Your task to perform on an android device: clear history in the chrome app Image 0: 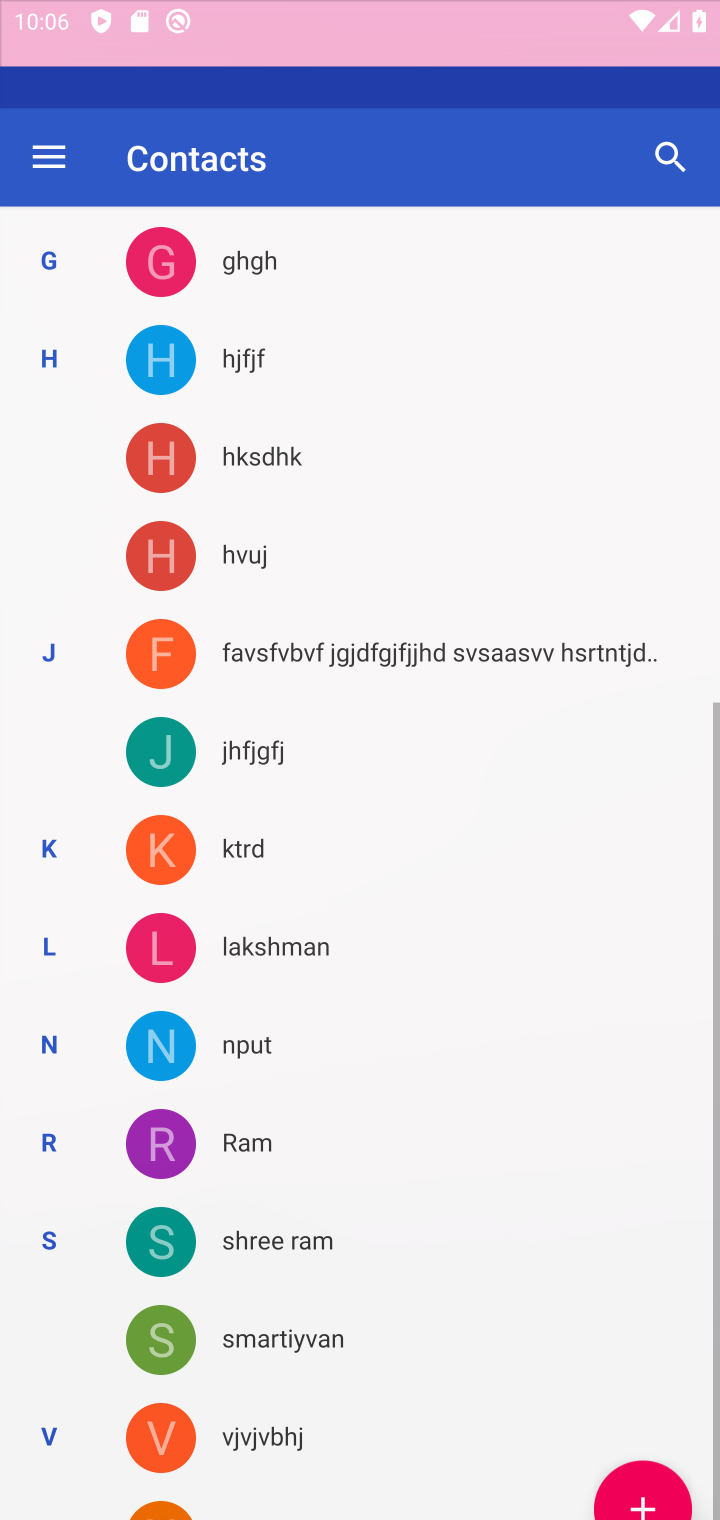
Step 0: press home button
Your task to perform on an android device: clear history in the chrome app Image 1: 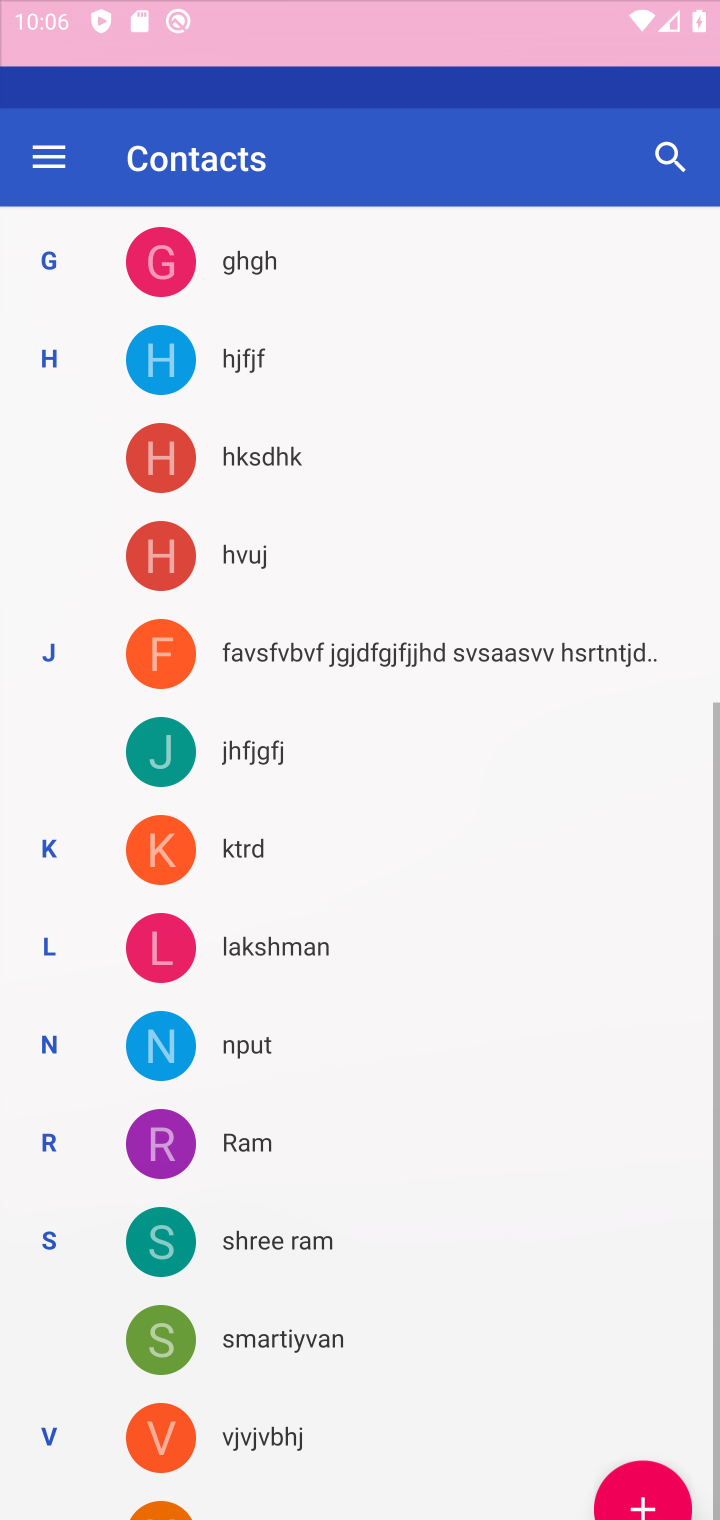
Step 1: click (409, 724)
Your task to perform on an android device: clear history in the chrome app Image 2: 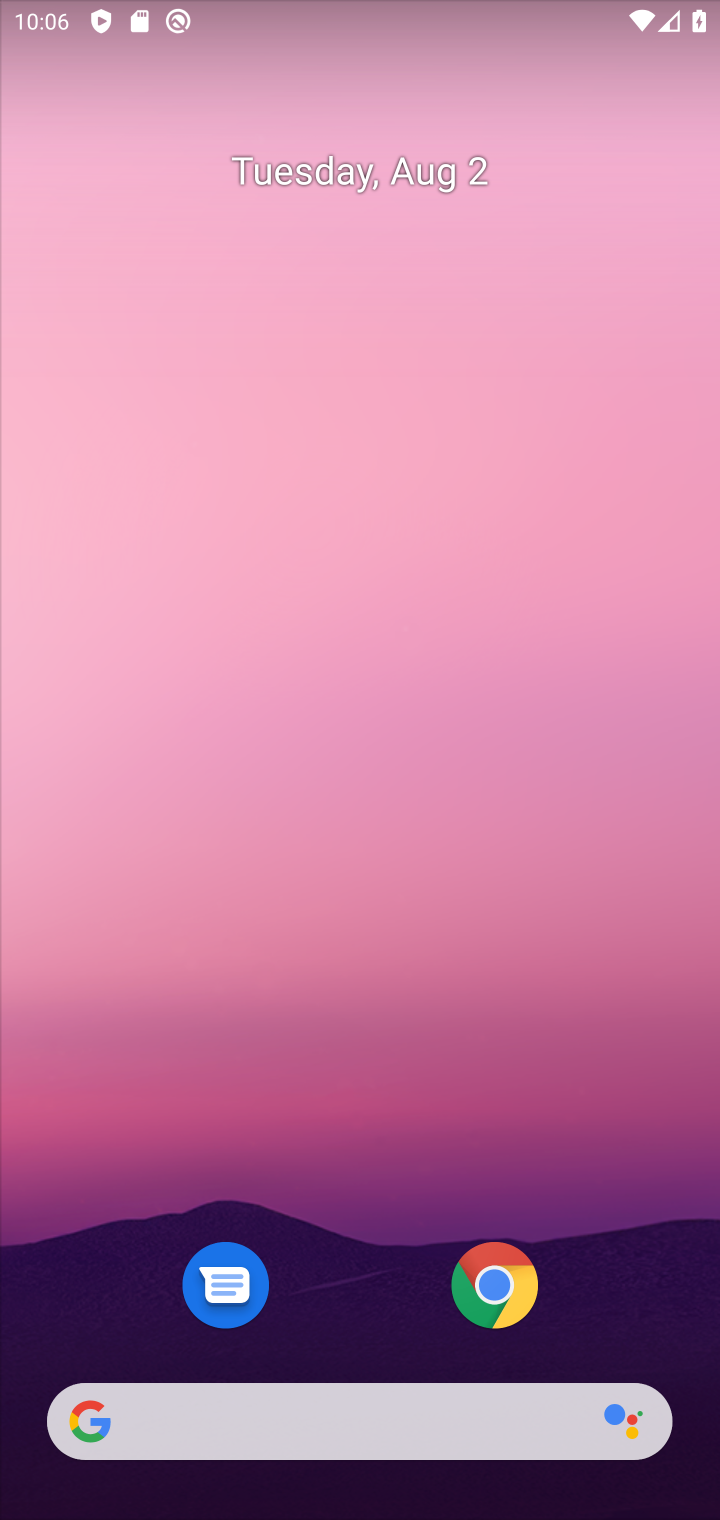
Step 2: drag from (396, 1127) to (545, 526)
Your task to perform on an android device: clear history in the chrome app Image 3: 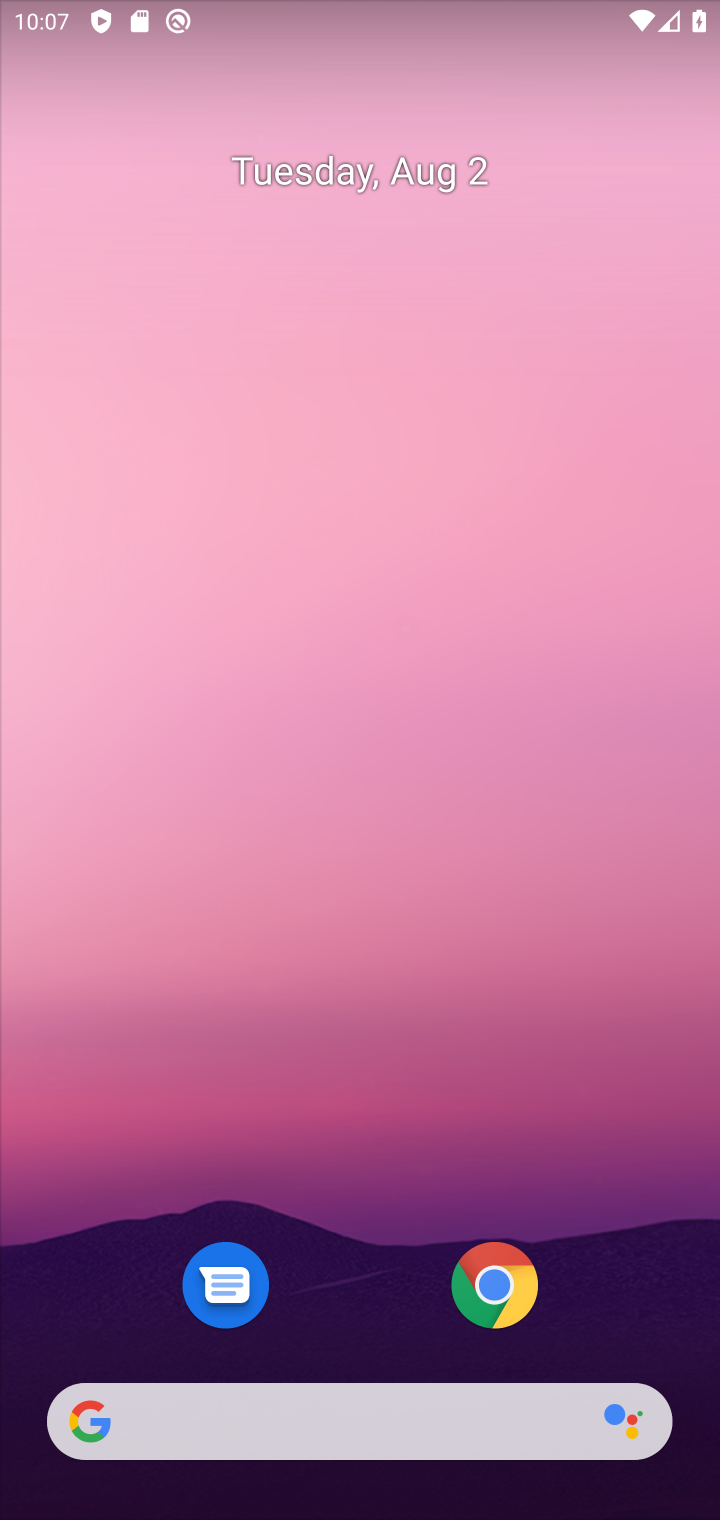
Step 3: drag from (310, 1293) to (341, 361)
Your task to perform on an android device: clear history in the chrome app Image 4: 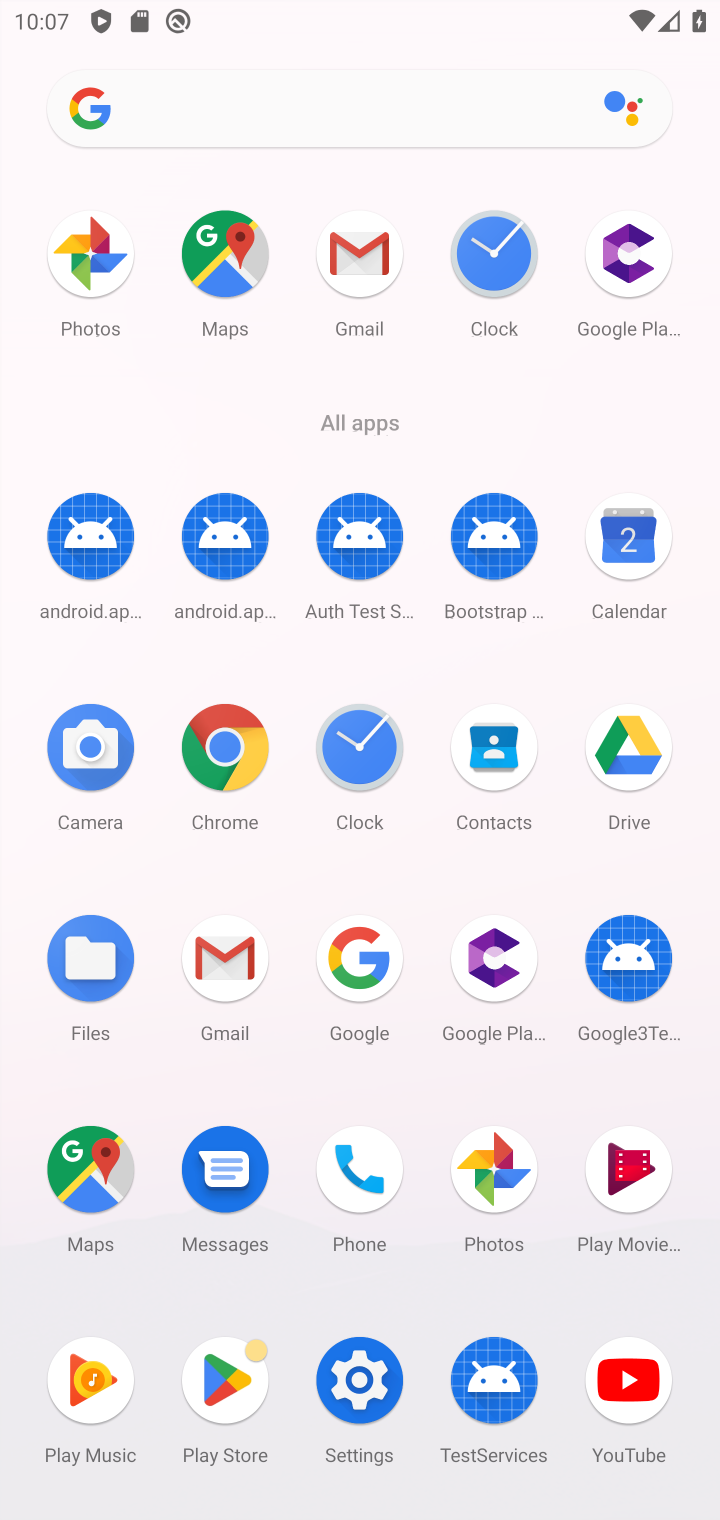
Step 4: click (215, 733)
Your task to perform on an android device: clear history in the chrome app Image 5: 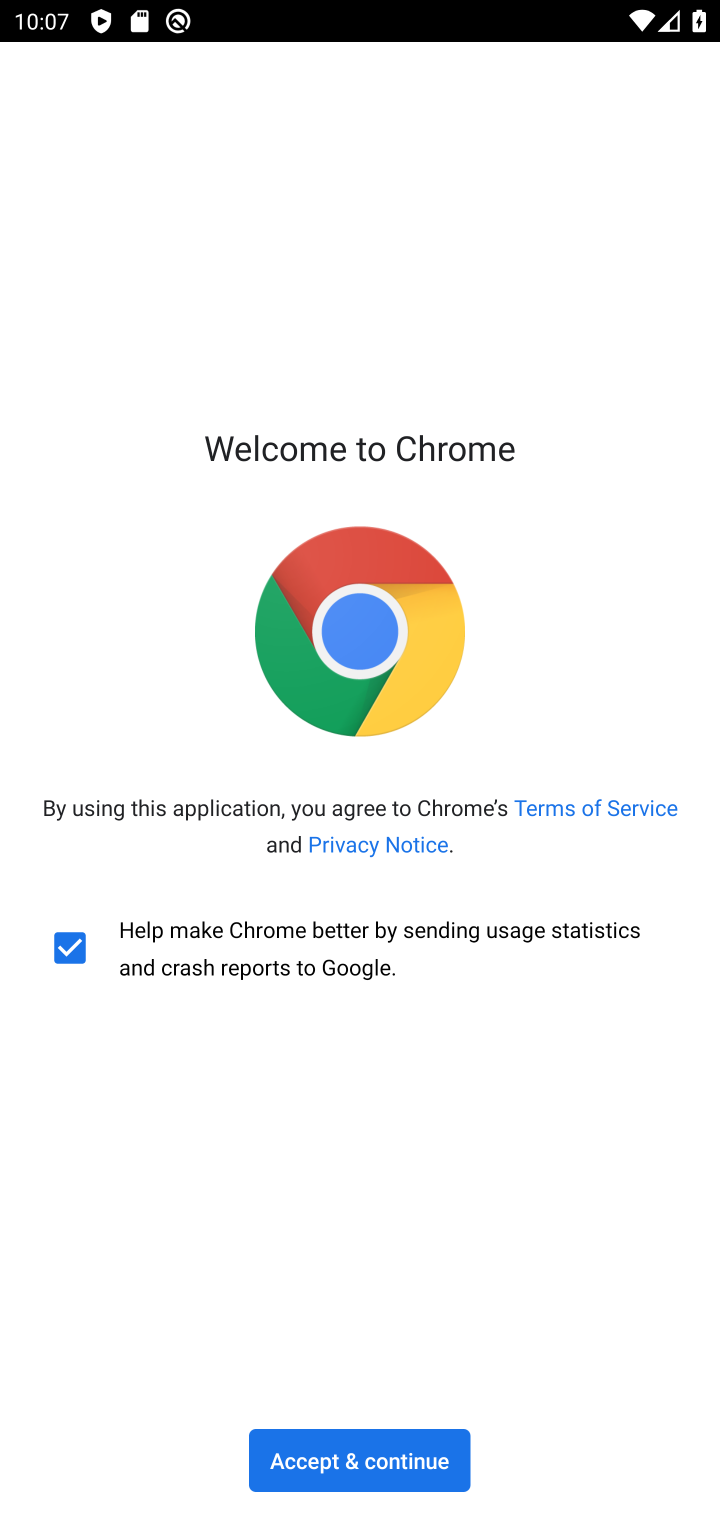
Step 5: click (365, 1464)
Your task to perform on an android device: clear history in the chrome app Image 6: 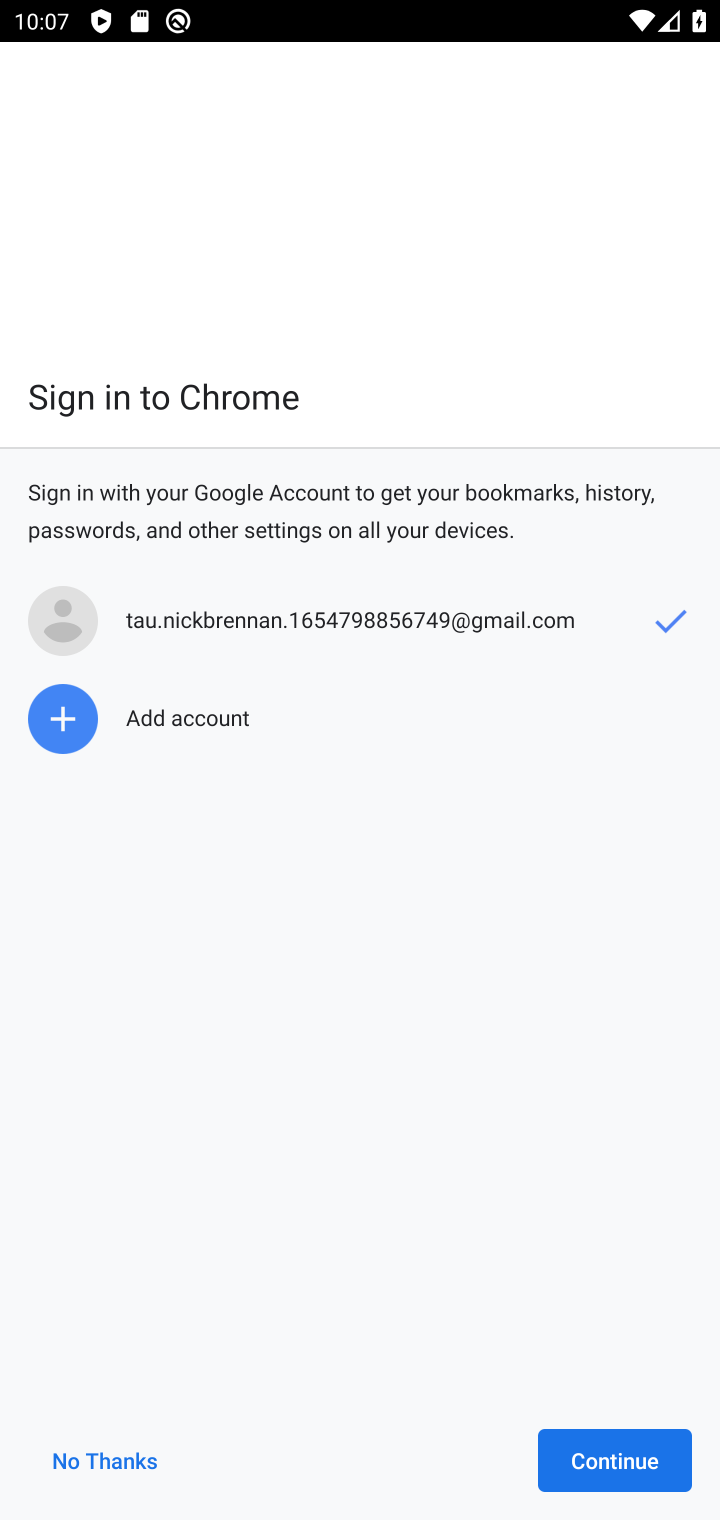
Step 6: click (618, 1458)
Your task to perform on an android device: clear history in the chrome app Image 7: 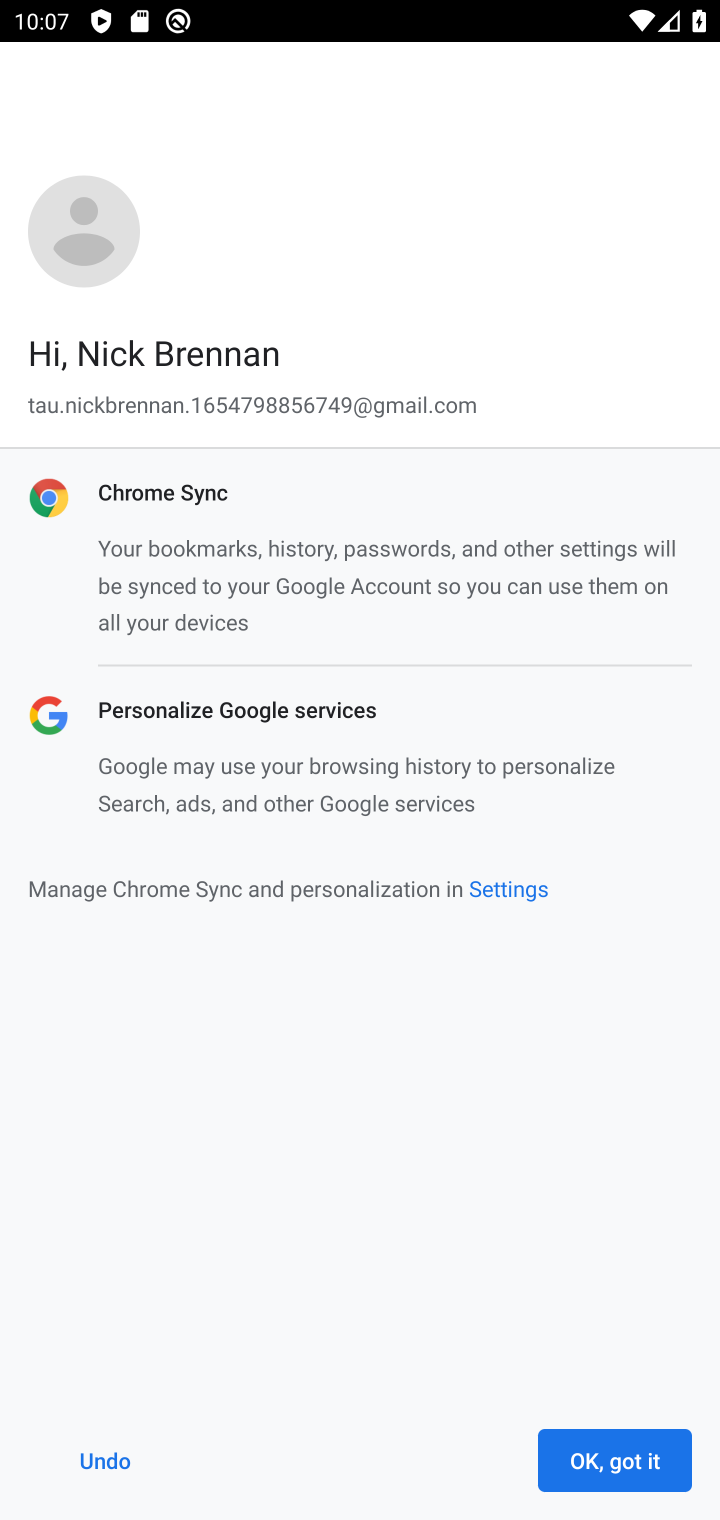
Step 7: click (616, 1458)
Your task to perform on an android device: clear history in the chrome app Image 8: 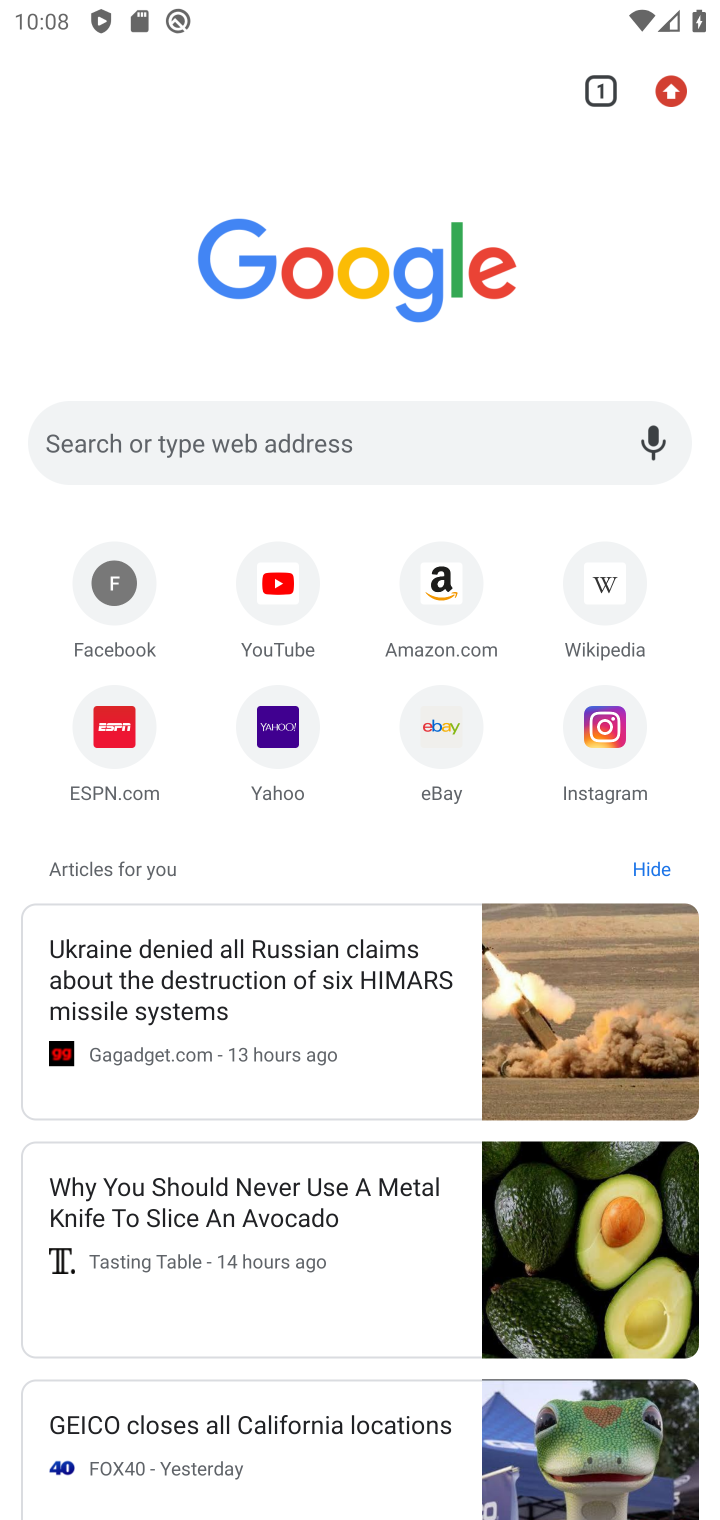
Step 8: drag from (338, 1246) to (398, 604)
Your task to perform on an android device: clear history in the chrome app Image 9: 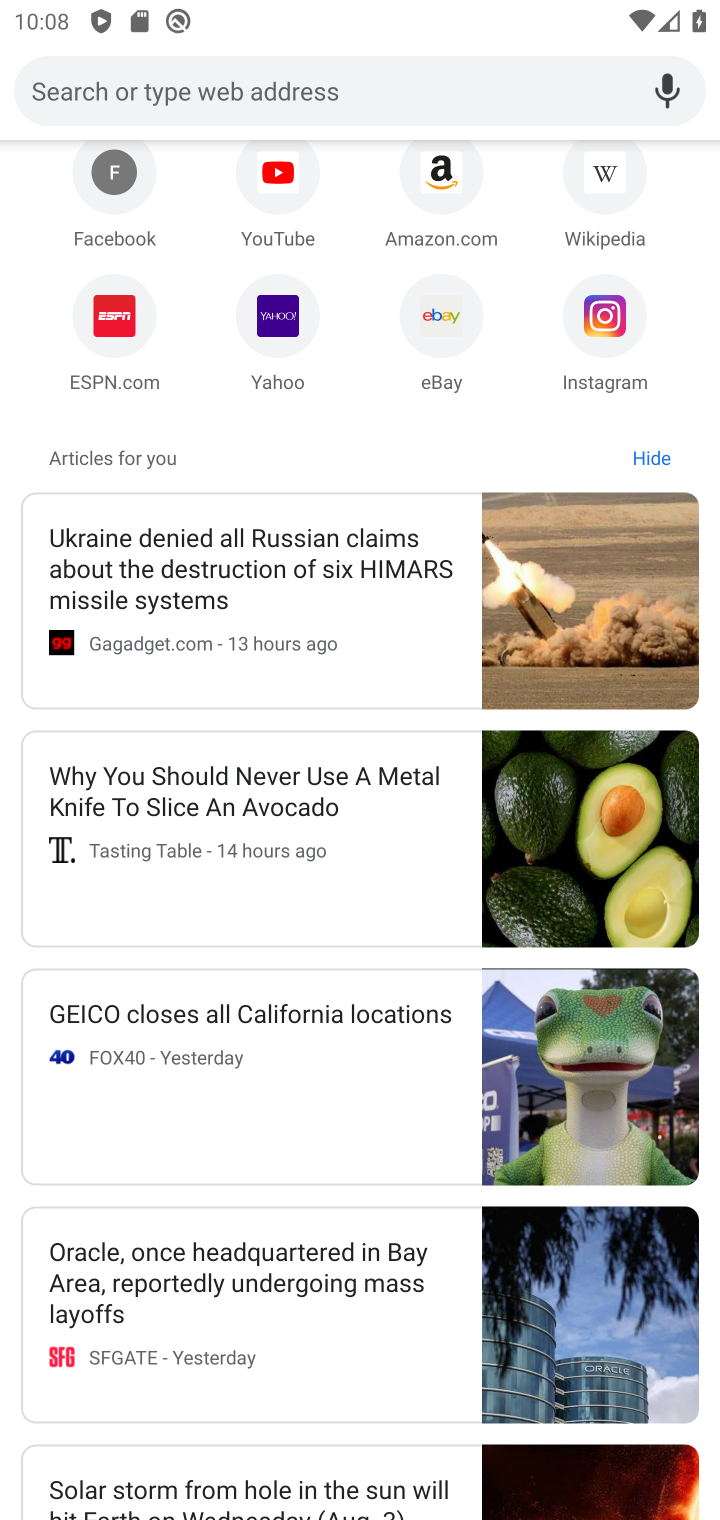
Step 9: drag from (268, 538) to (421, 1401)
Your task to perform on an android device: clear history in the chrome app Image 10: 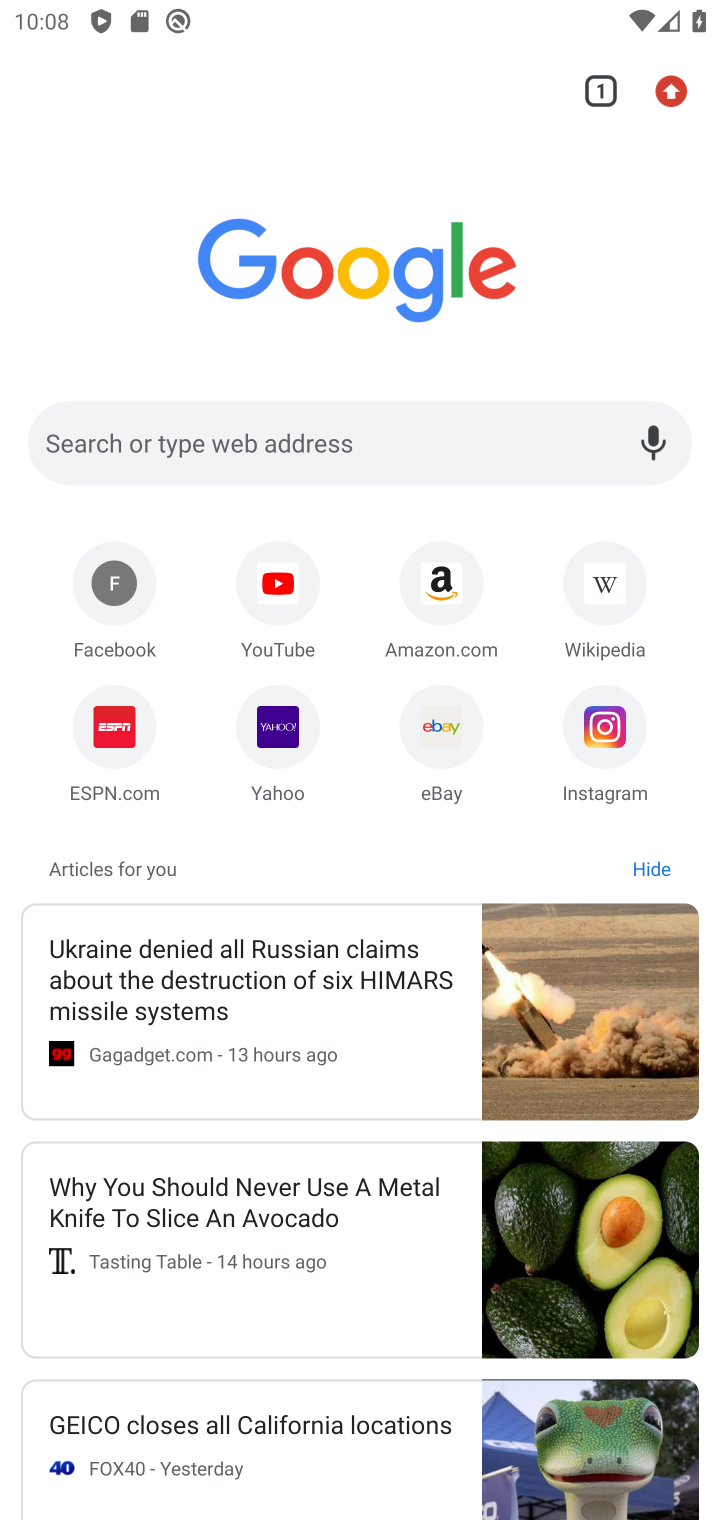
Step 10: drag from (660, 89) to (424, 612)
Your task to perform on an android device: clear history in the chrome app Image 11: 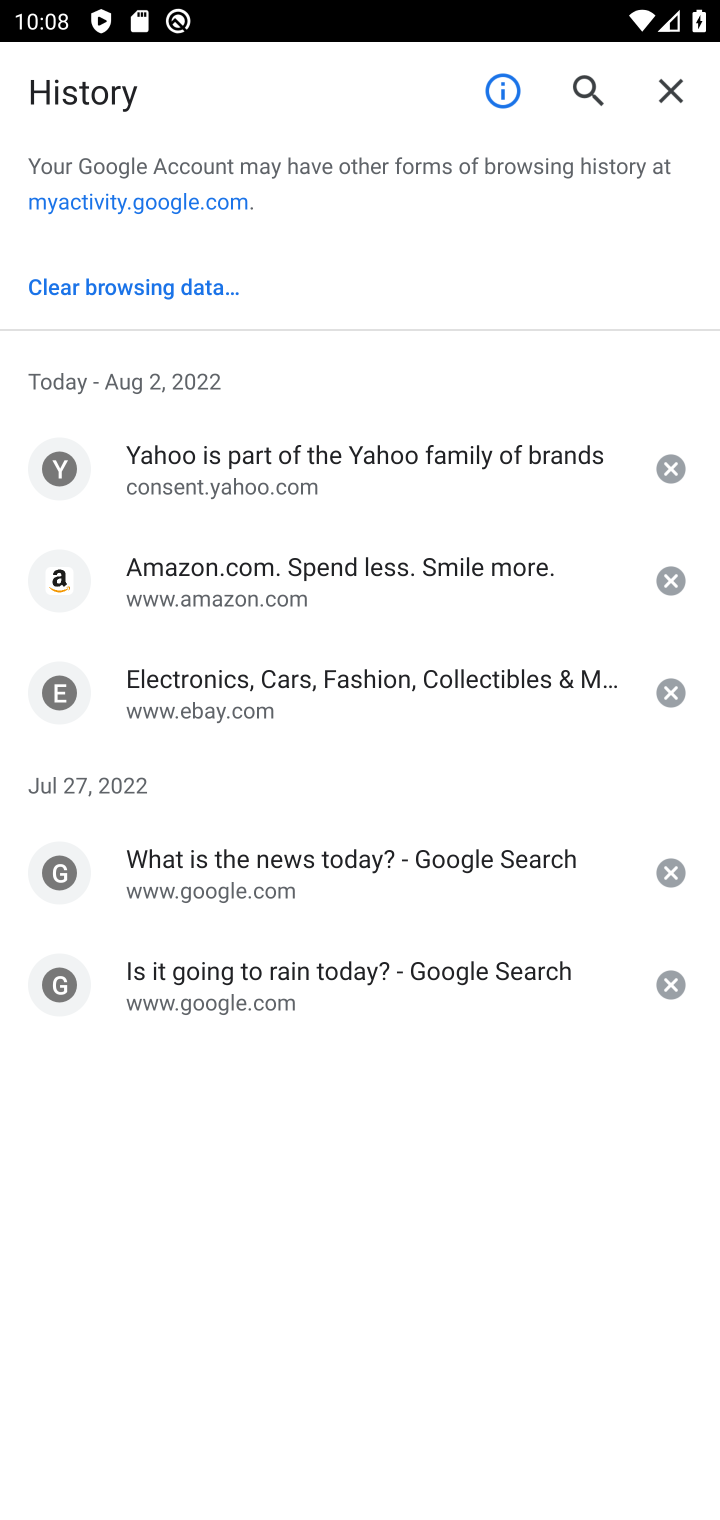
Step 11: click (97, 282)
Your task to perform on an android device: clear history in the chrome app Image 12: 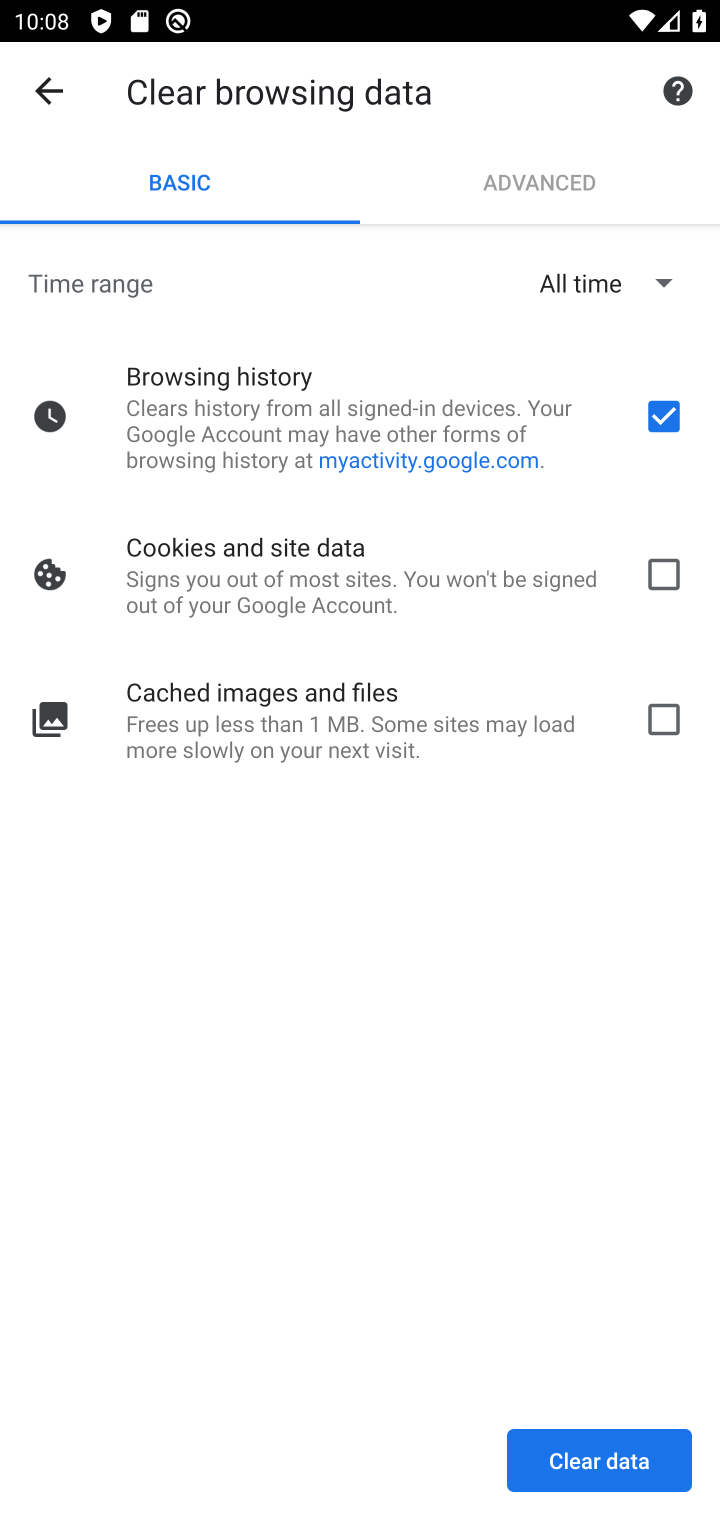
Step 12: drag from (329, 1220) to (326, 706)
Your task to perform on an android device: clear history in the chrome app Image 13: 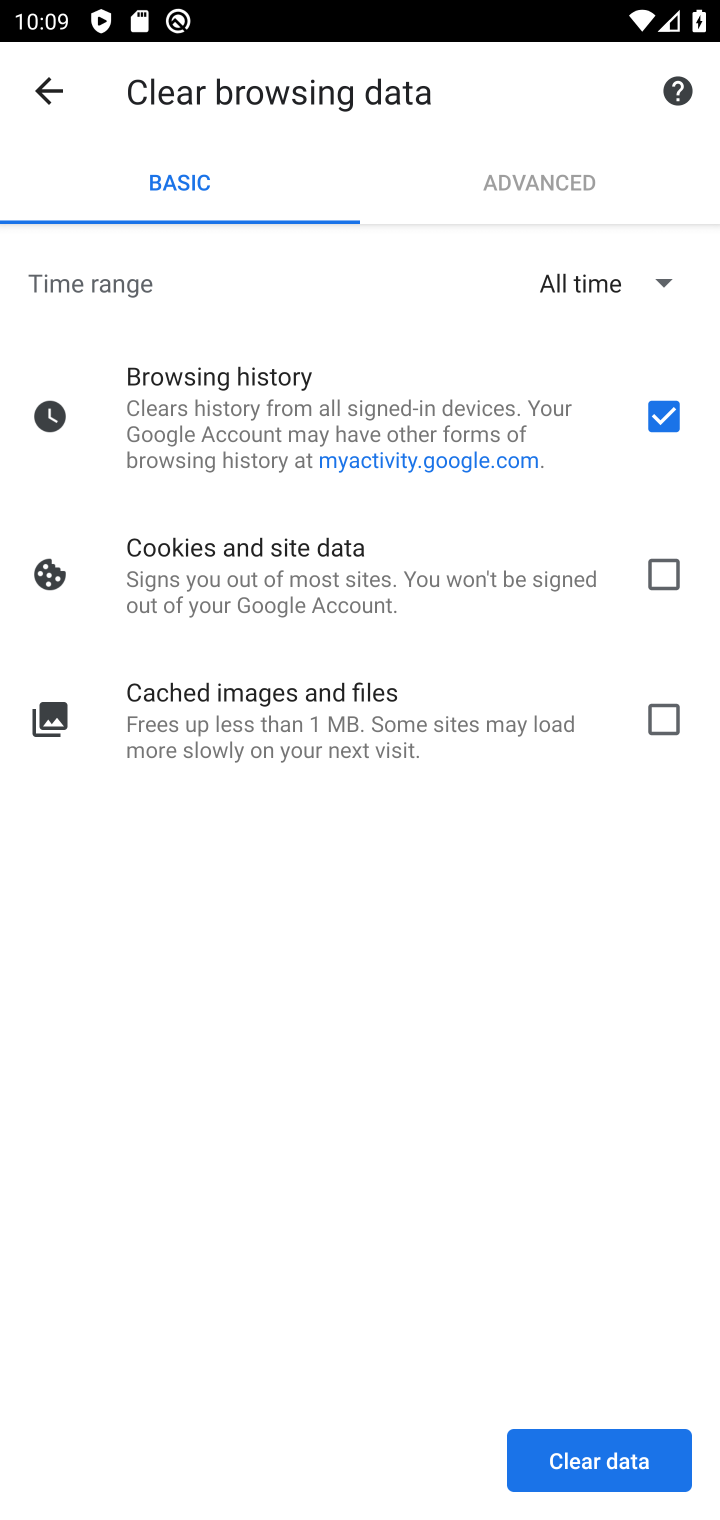
Step 13: click (643, 558)
Your task to perform on an android device: clear history in the chrome app Image 14: 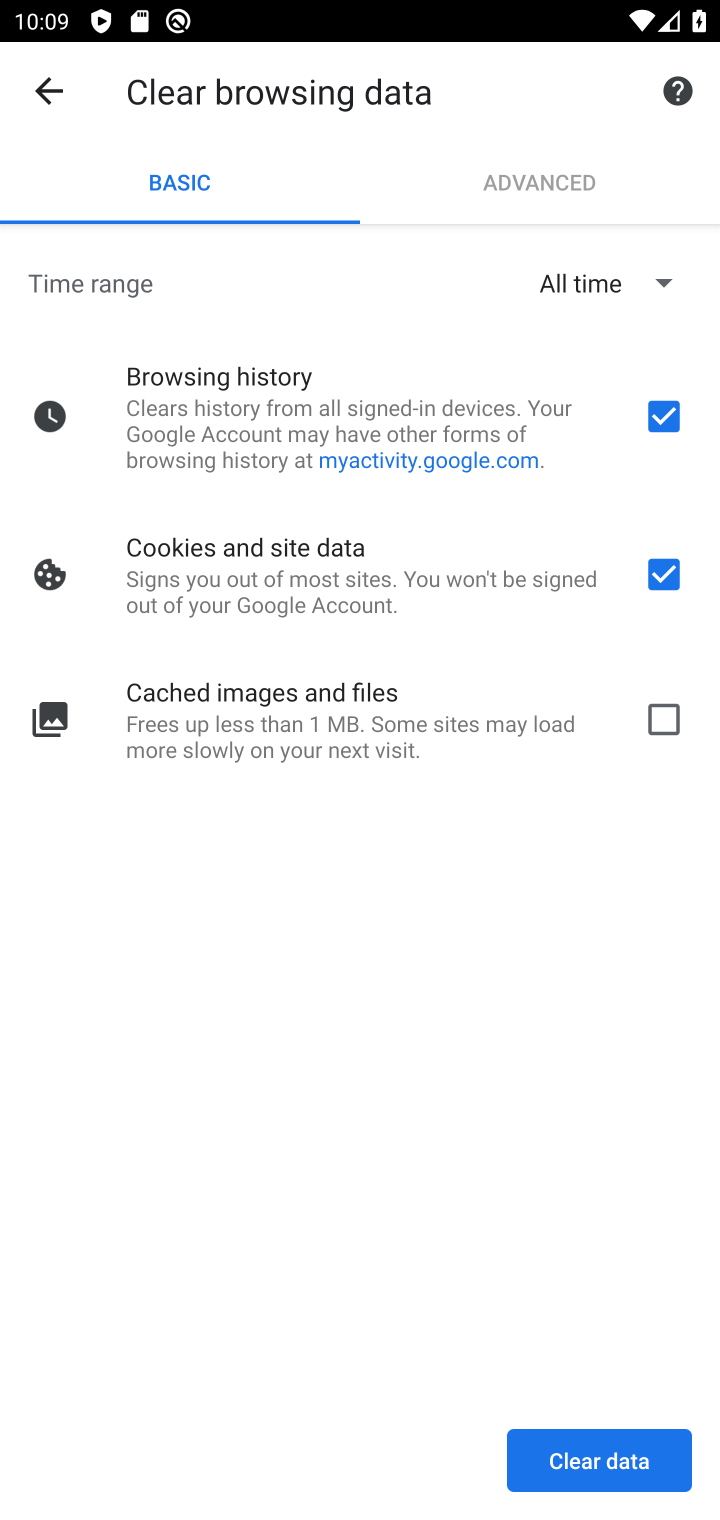
Step 14: click (651, 597)
Your task to perform on an android device: clear history in the chrome app Image 15: 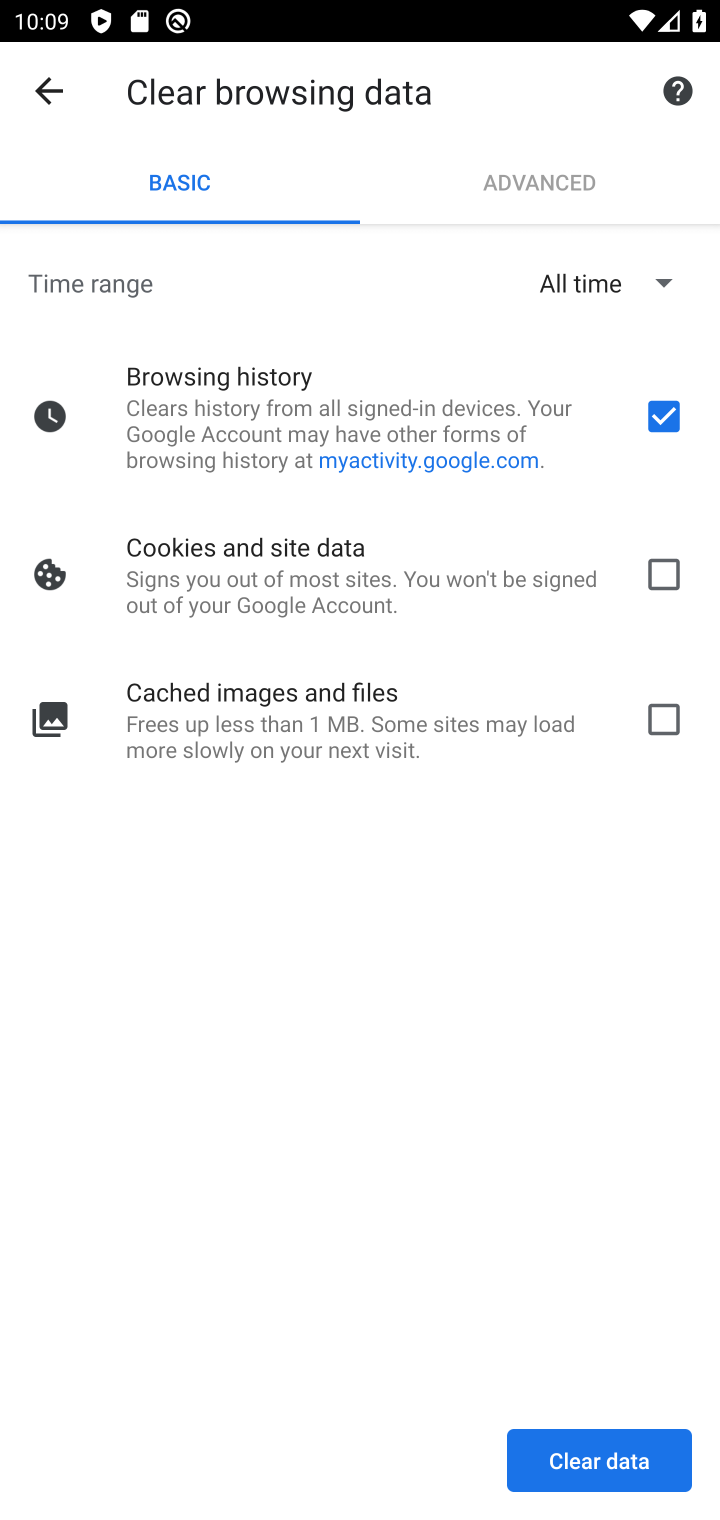
Step 15: click (577, 1467)
Your task to perform on an android device: clear history in the chrome app Image 16: 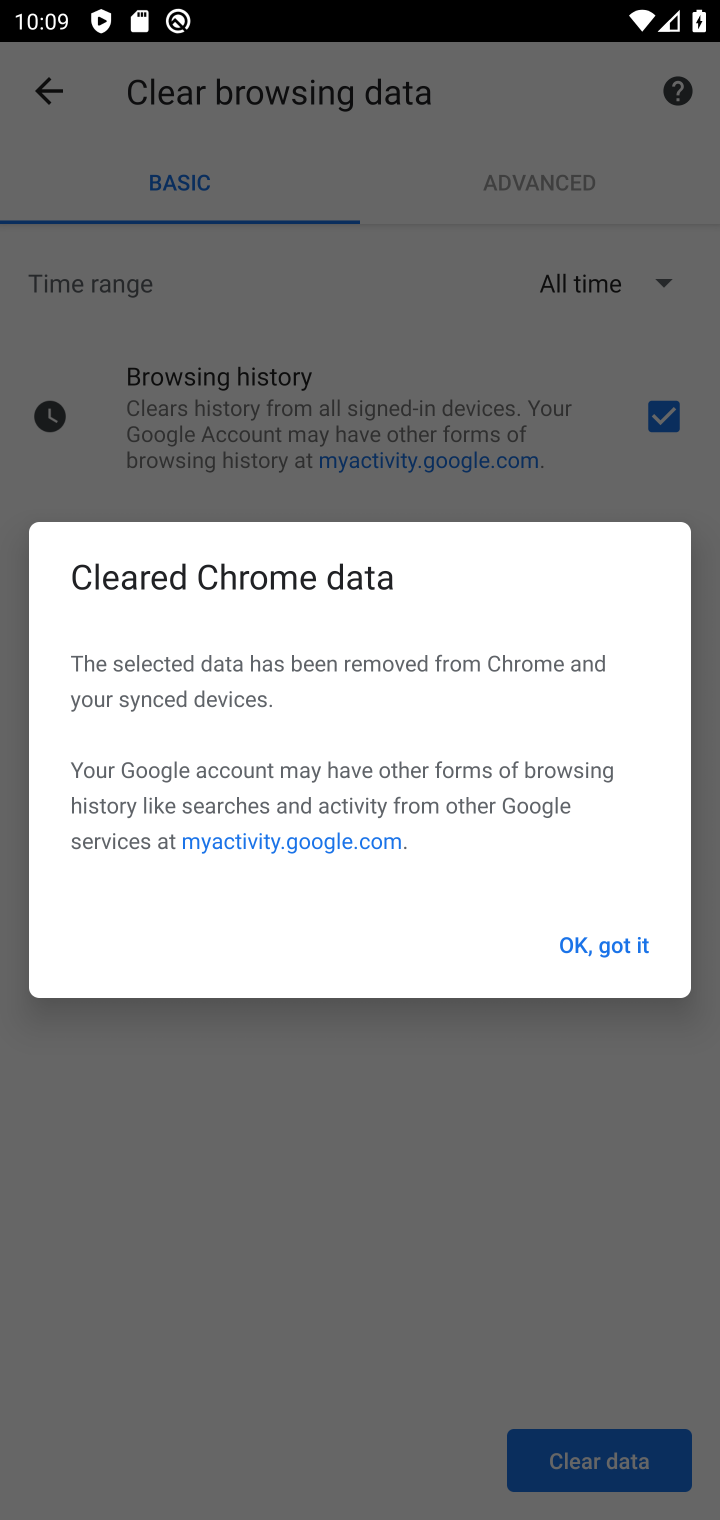
Step 16: click (590, 933)
Your task to perform on an android device: clear history in the chrome app Image 17: 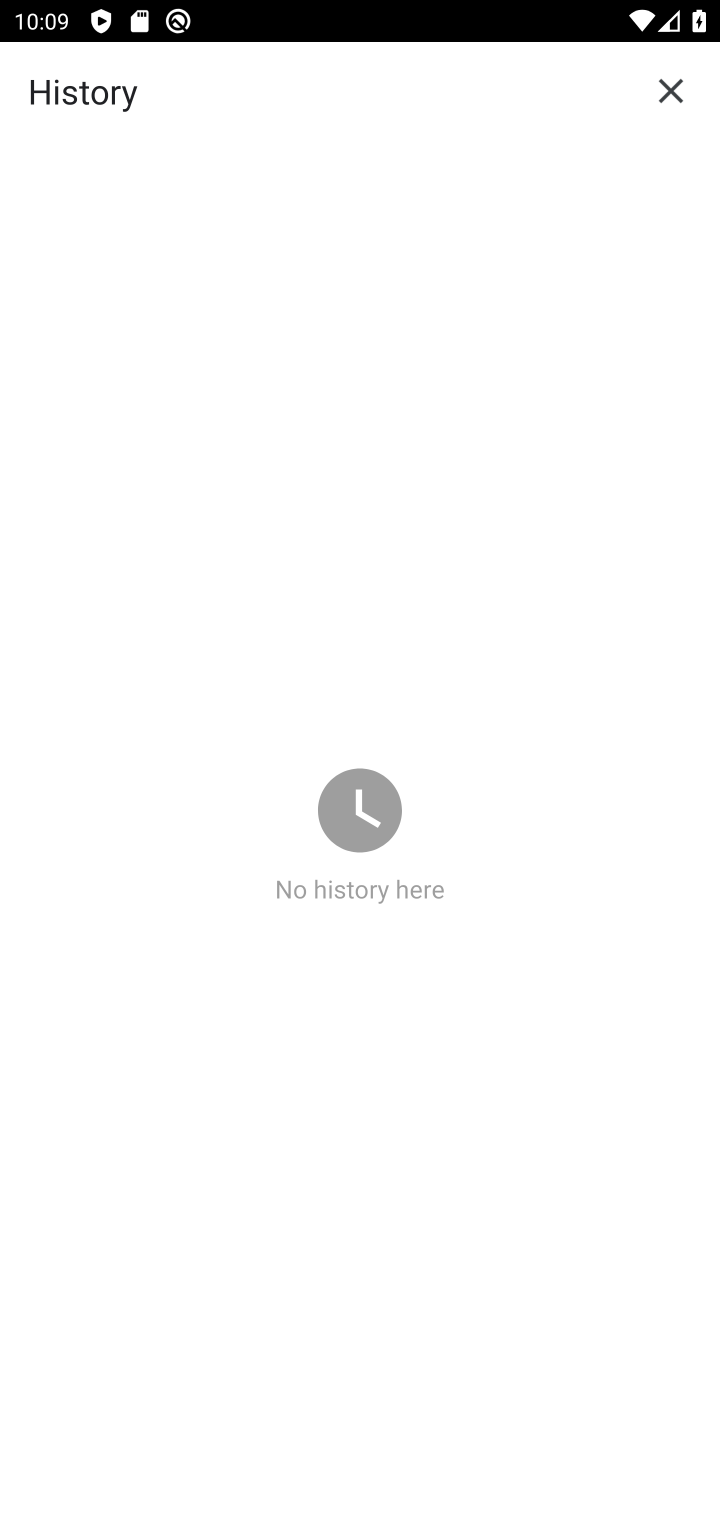
Step 17: task complete